Your task to perform on an android device: turn on priority inbox in the gmail app Image 0: 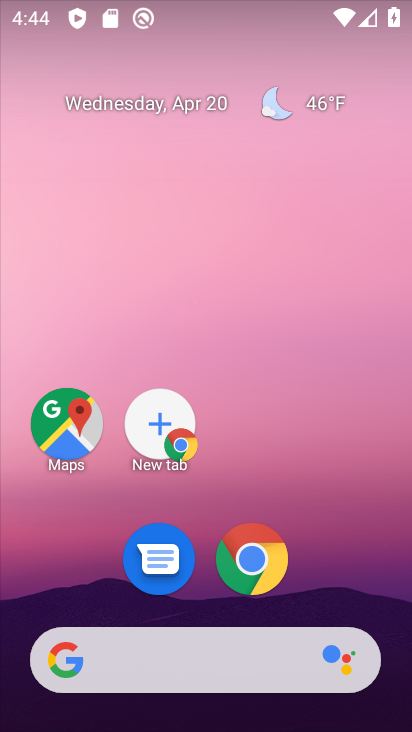
Step 0: drag from (370, 484) to (355, 202)
Your task to perform on an android device: turn on priority inbox in the gmail app Image 1: 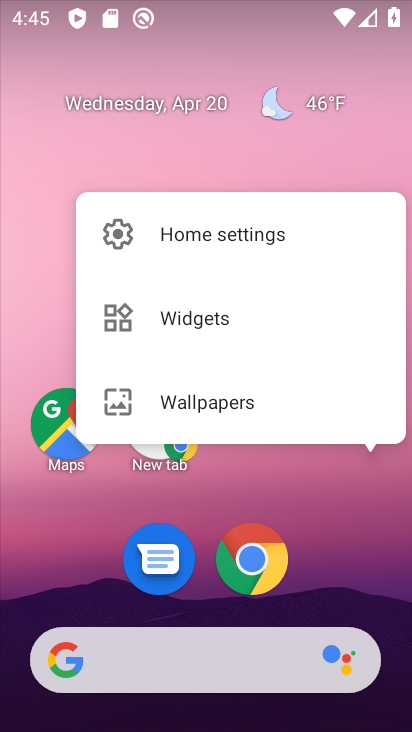
Step 1: click (237, 562)
Your task to perform on an android device: turn on priority inbox in the gmail app Image 2: 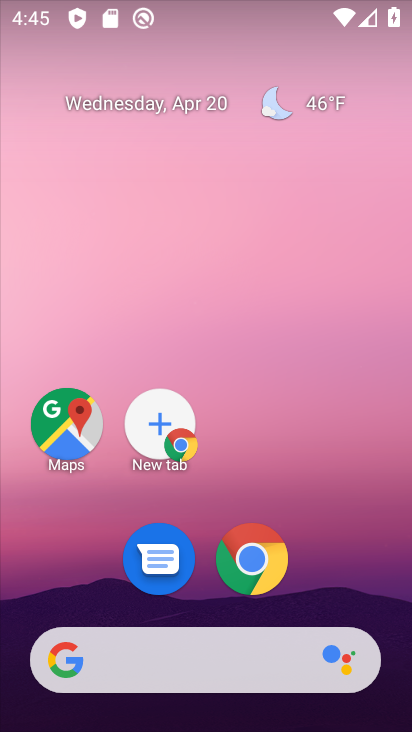
Step 2: drag from (373, 580) to (252, 50)
Your task to perform on an android device: turn on priority inbox in the gmail app Image 3: 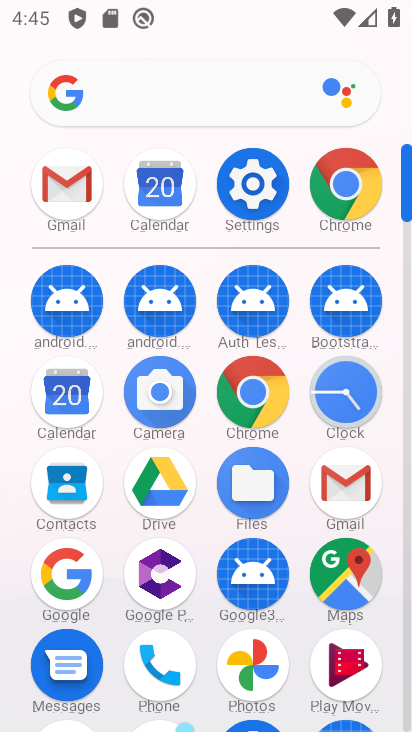
Step 3: click (348, 506)
Your task to perform on an android device: turn on priority inbox in the gmail app Image 4: 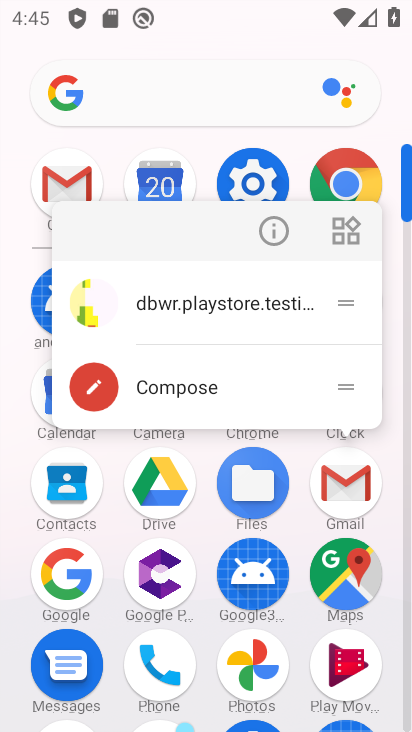
Step 4: click (348, 506)
Your task to perform on an android device: turn on priority inbox in the gmail app Image 5: 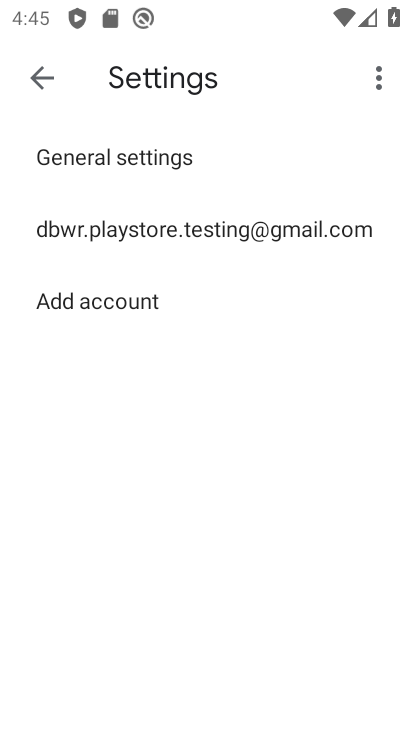
Step 5: press home button
Your task to perform on an android device: turn on priority inbox in the gmail app Image 6: 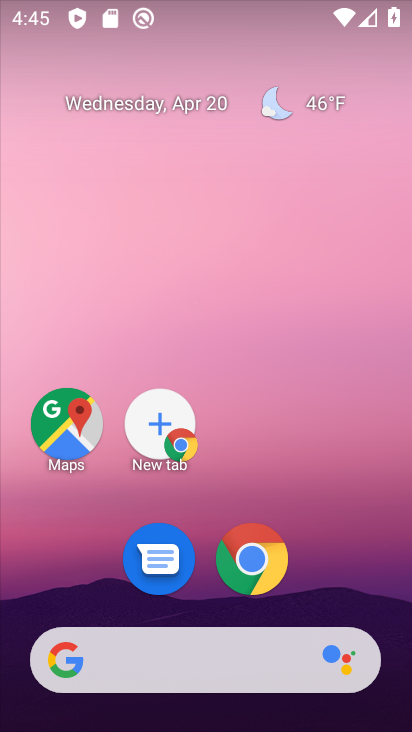
Step 6: drag from (384, 580) to (257, 36)
Your task to perform on an android device: turn on priority inbox in the gmail app Image 7: 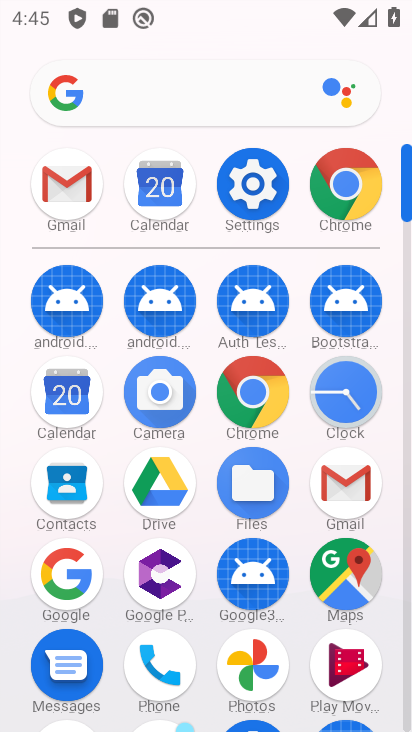
Step 7: click (340, 488)
Your task to perform on an android device: turn on priority inbox in the gmail app Image 8: 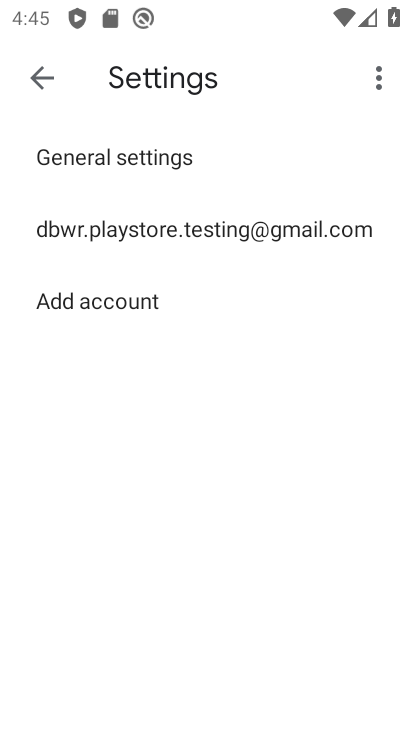
Step 8: click (53, 79)
Your task to perform on an android device: turn on priority inbox in the gmail app Image 9: 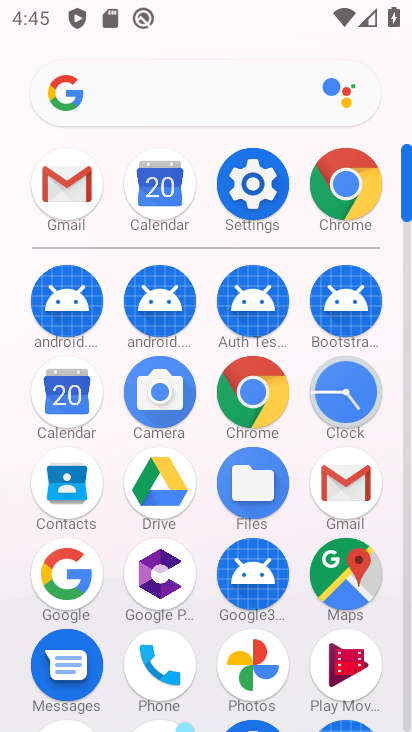
Step 9: click (58, 203)
Your task to perform on an android device: turn on priority inbox in the gmail app Image 10: 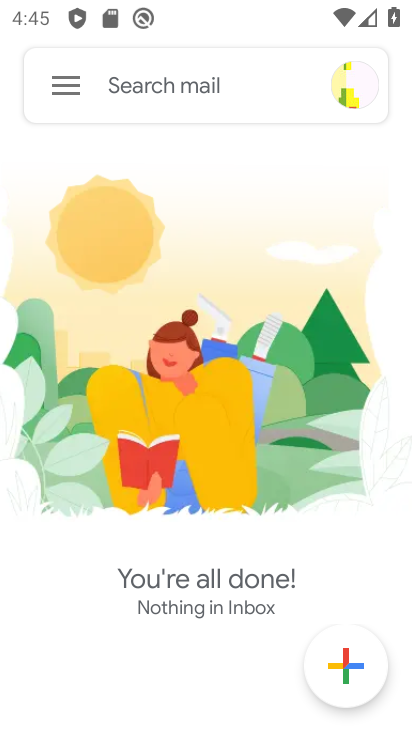
Step 10: click (60, 73)
Your task to perform on an android device: turn on priority inbox in the gmail app Image 11: 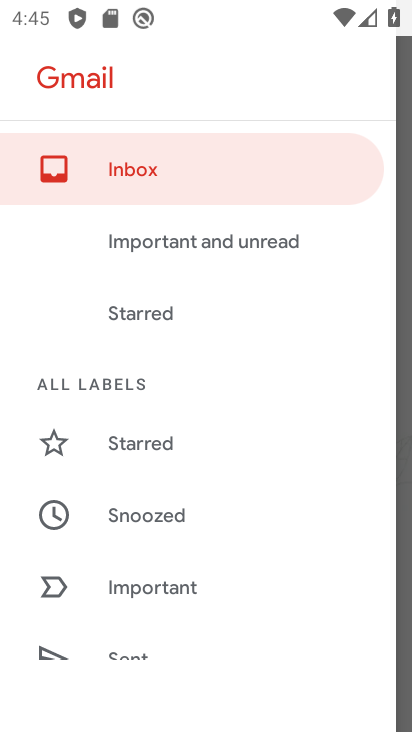
Step 11: drag from (174, 500) to (177, 259)
Your task to perform on an android device: turn on priority inbox in the gmail app Image 12: 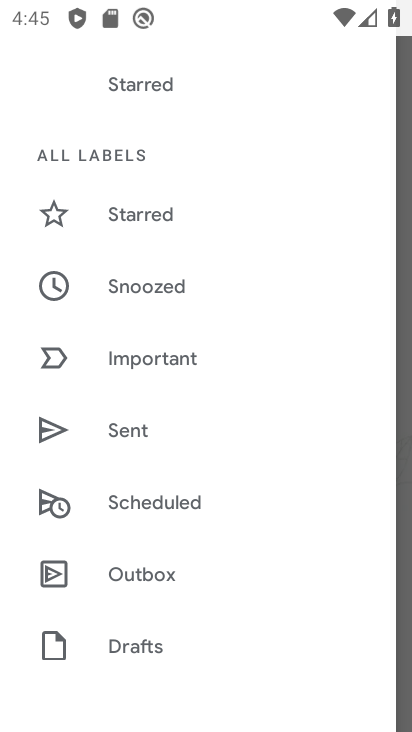
Step 12: drag from (202, 629) to (196, 371)
Your task to perform on an android device: turn on priority inbox in the gmail app Image 13: 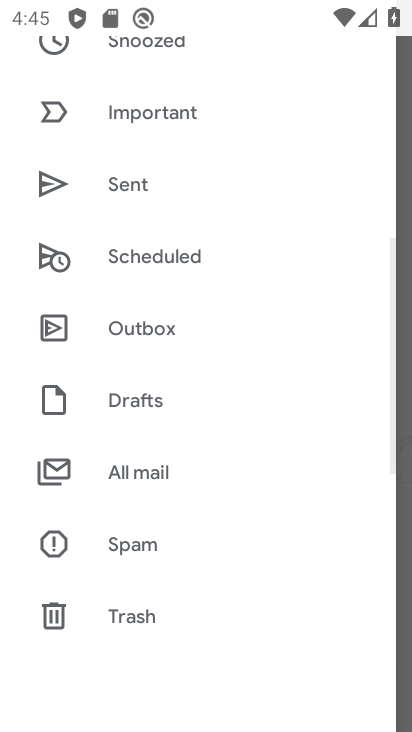
Step 13: drag from (235, 562) to (241, 149)
Your task to perform on an android device: turn on priority inbox in the gmail app Image 14: 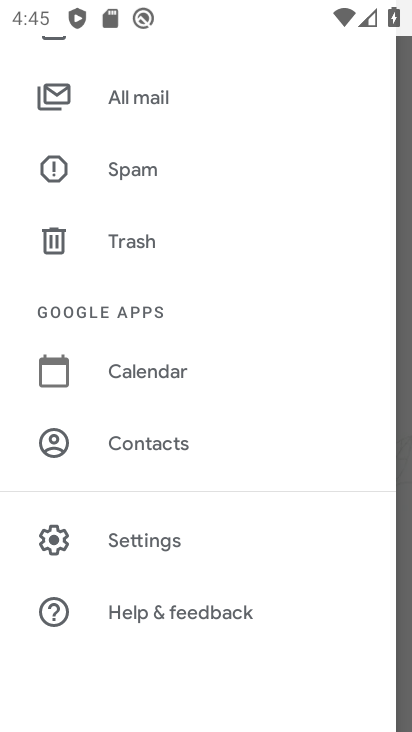
Step 14: click (165, 533)
Your task to perform on an android device: turn on priority inbox in the gmail app Image 15: 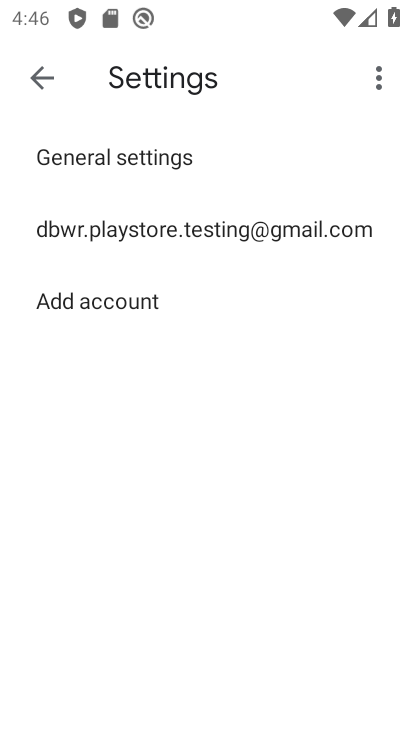
Step 15: click (197, 240)
Your task to perform on an android device: turn on priority inbox in the gmail app Image 16: 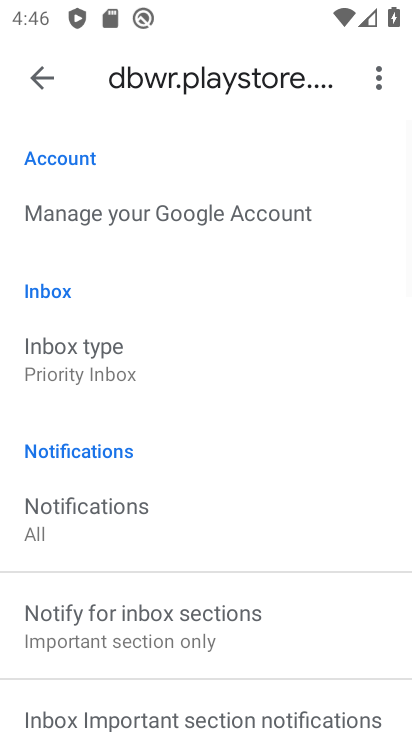
Step 16: task complete